Your task to perform on an android device: Show me popular videos on Youtube Image 0: 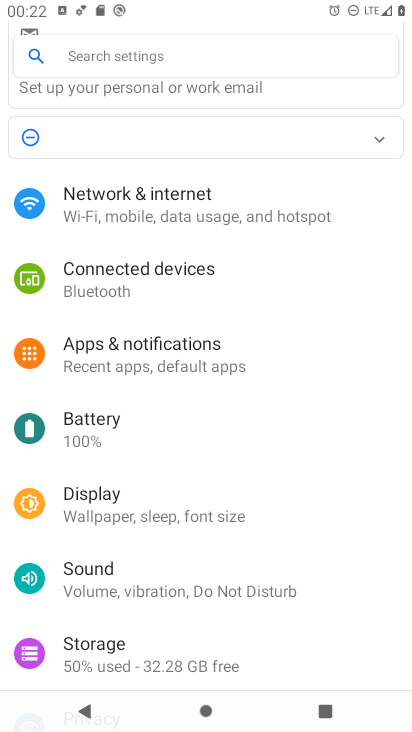
Step 0: press home button
Your task to perform on an android device: Show me popular videos on Youtube Image 1: 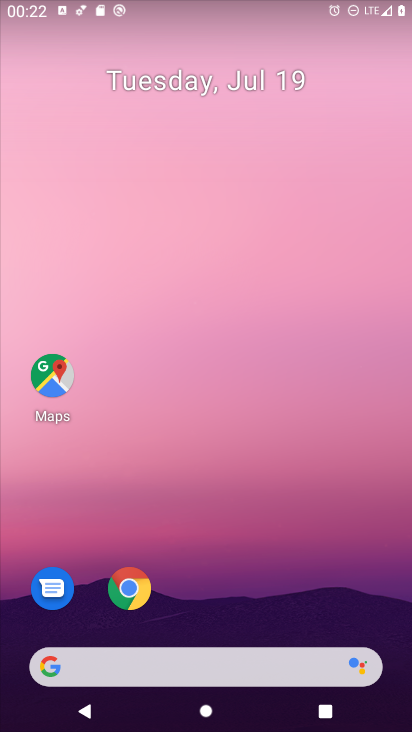
Step 1: drag from (377, 632) to (334, 62)
Your task to perform on an android device: Show me popular videos on Youtube Image 2: 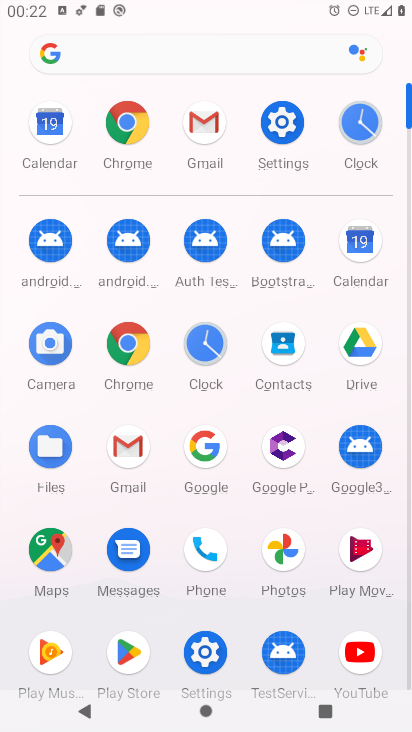
Step 2: click (361, 649)
Your task to perform on an android device: Show me popular videos on Youtube Image 3: 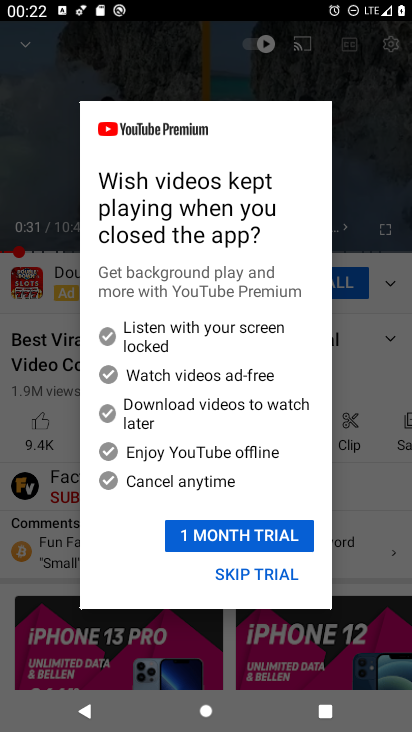
Step 3: press back button
Your task to perform on an android device: Show me popular videos on Youtube Image 4: 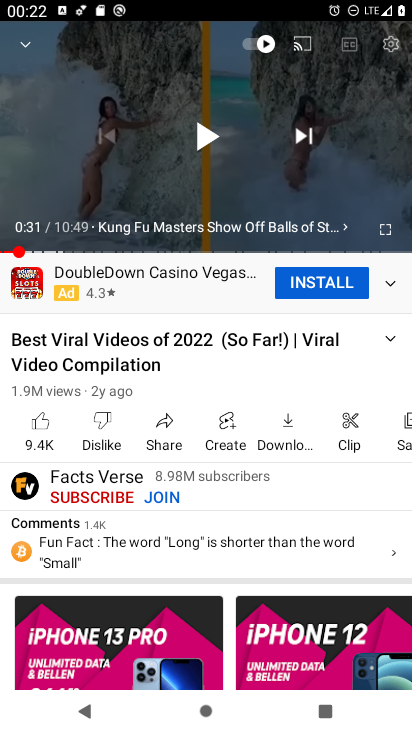
Step 4: click (20, 44)
Your task to perform on an android device: Show me popular videos on Youtube Image 5: 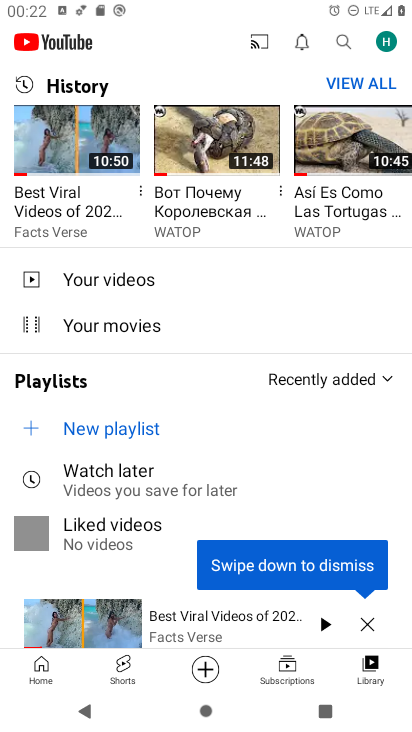
Step 5: click (43, 669)
Your task to perform on an android device: Show me popular videos on Youtube Image 6: 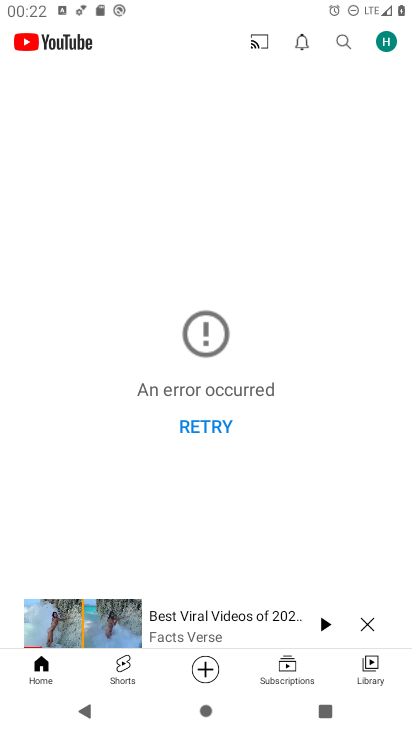
Step 6: click (199, 428)
Your task to perform on an android device: Show me popular videos on Youtube Image 7: 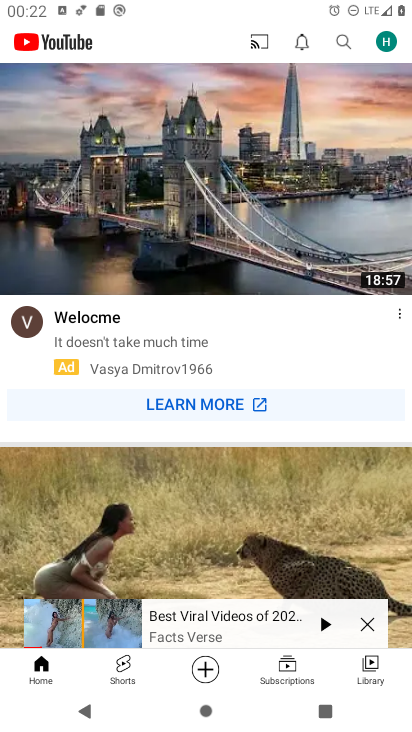
Step 7: drag from (116, 125) to (128, 420)
Your task to perform on an android device: Show me popular videos on Youtube Image 8: 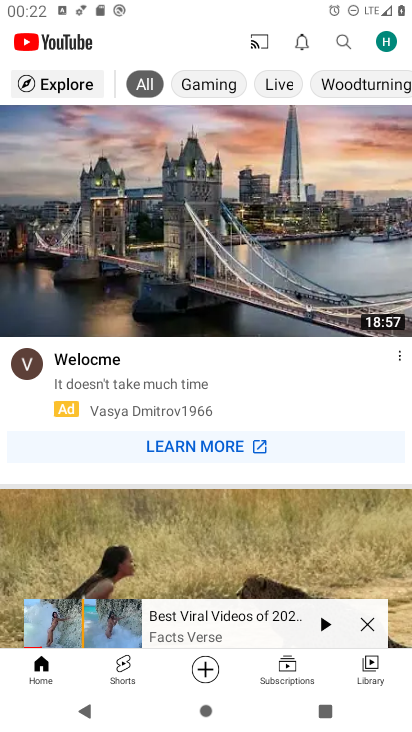
Step 8: click (53, 81)
Your task to perform on an android device: Show me popular videos on Youtube Image 9: 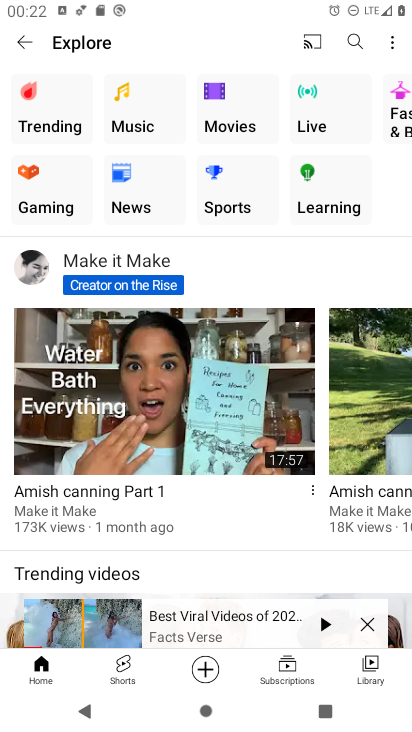
Step 9: click (47, 105)
Your task to perform on an android device: Show me popular videos on Youtube Image 10: 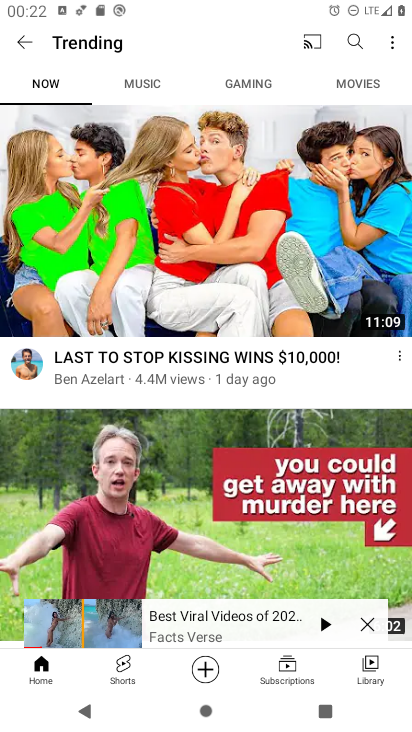
Step 10: task complete